Your task to perform on an android device: Is it going to rain tomorrow? Image 0: 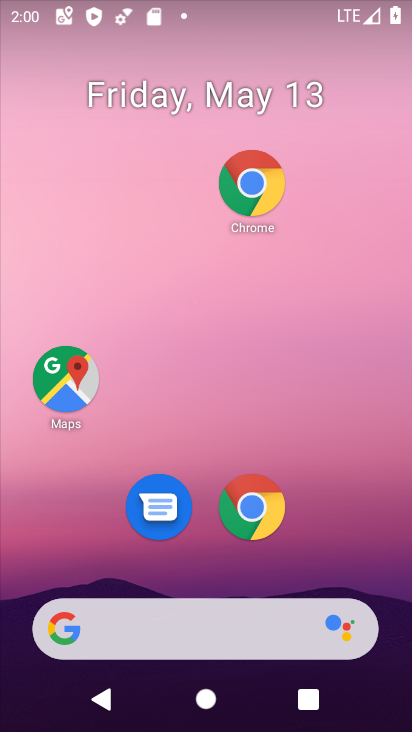
Step 0: click (378, 517)
Your task to perform on an android device: Is it going to rain tomorrow? Image 1: 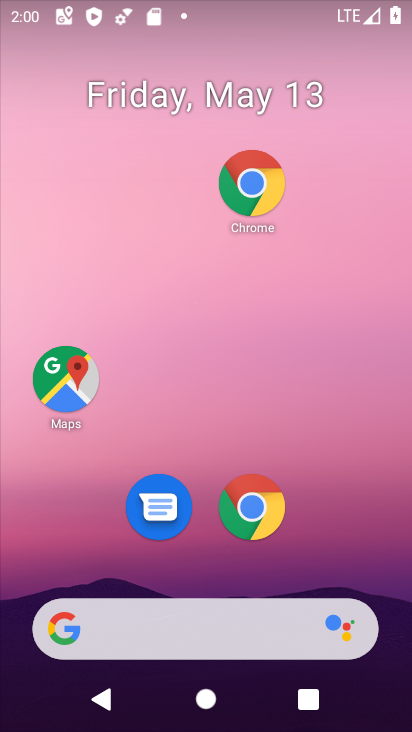
Step 1: drag from (51, 152) to (287, 329)
Your task to perform on an android device: Is it going to rain tomorrow? Image 2: 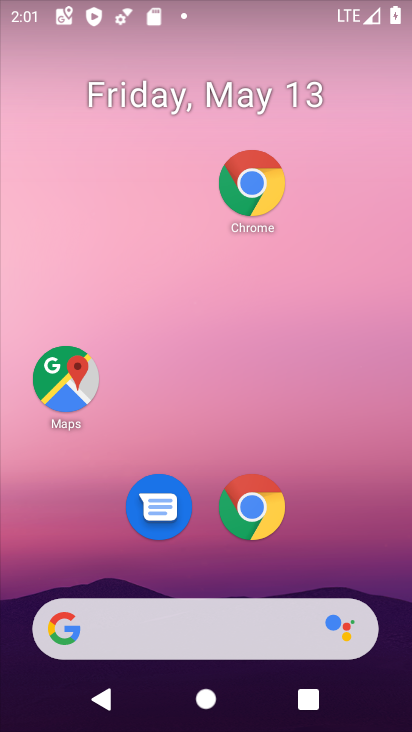
Step 2: click (403, 423)
Your task to perform on an android device: Is it going to rain tomorrow? Image 3: 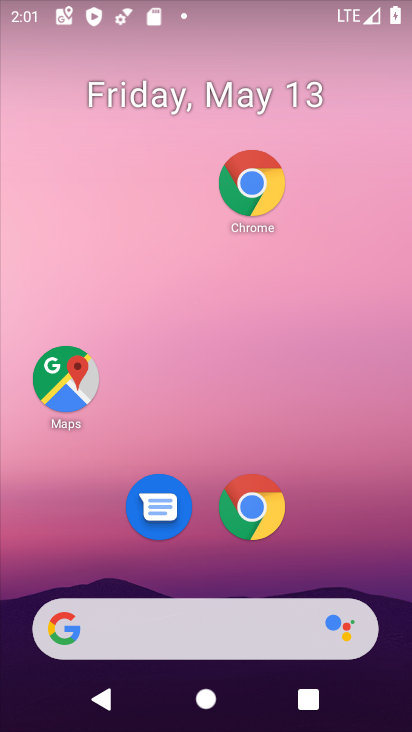
Step 3: drag from (12, 218) to (385, 462)
Your task to perform on an android device: Is it going to rain tomorrow? Image 4: 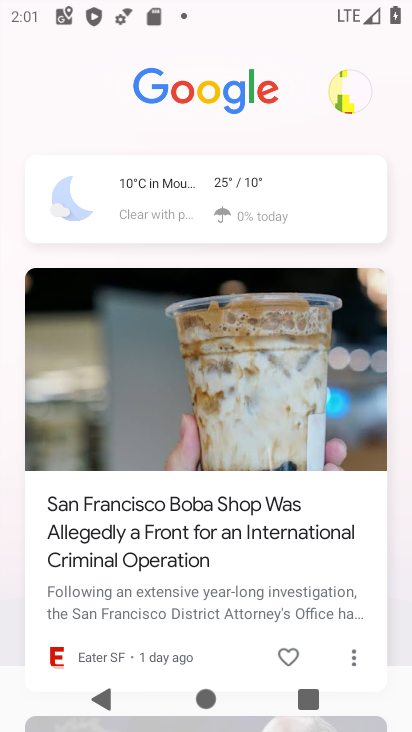
Step 4: click (186, 189)
Your task to perform on an android device: Is it going to rain tomorrow? Image 5: 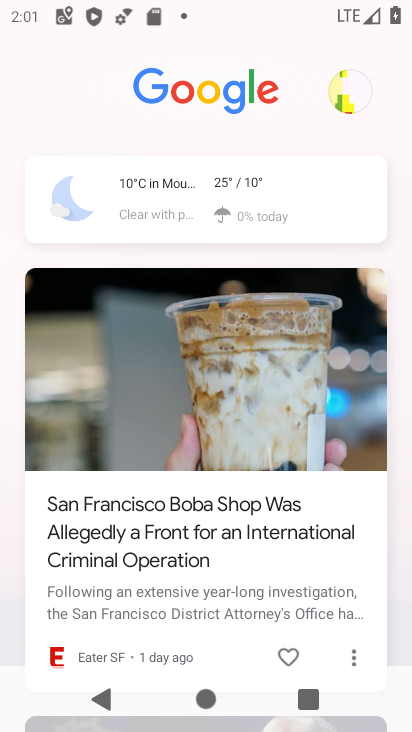
Step 5: click (190, 187)
Your task to perform on an android device: Is it going to rain tomorrow? Image 6: 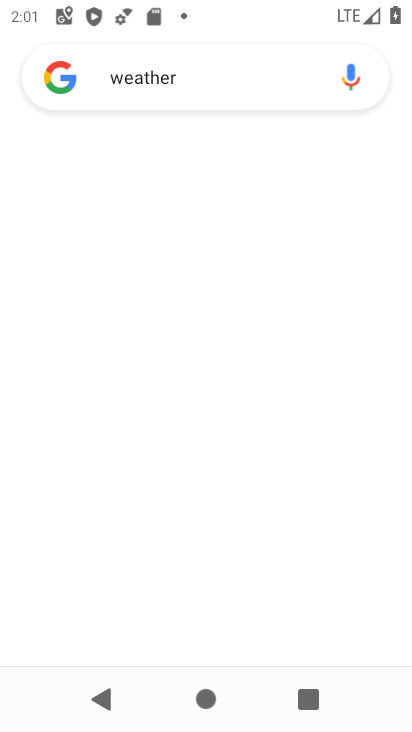
Step 6: click (201, 222)
Your task to perform on an android device: Is it going to rain tomorrow? Image 7: 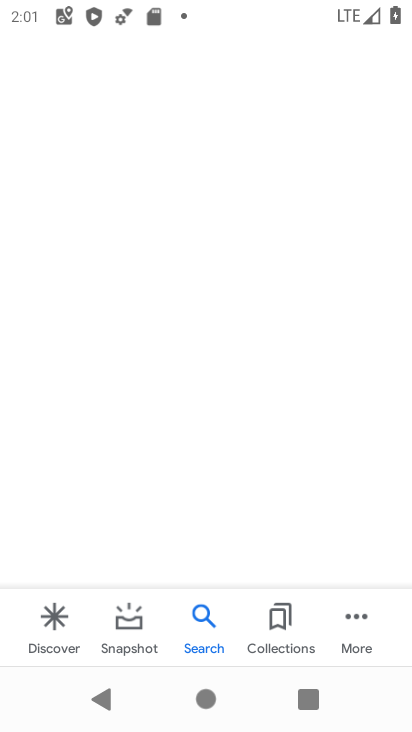
Step 7: click (203, 238)
Your task to perform on an android device: Is it going to rain tomorrow? Image 8: 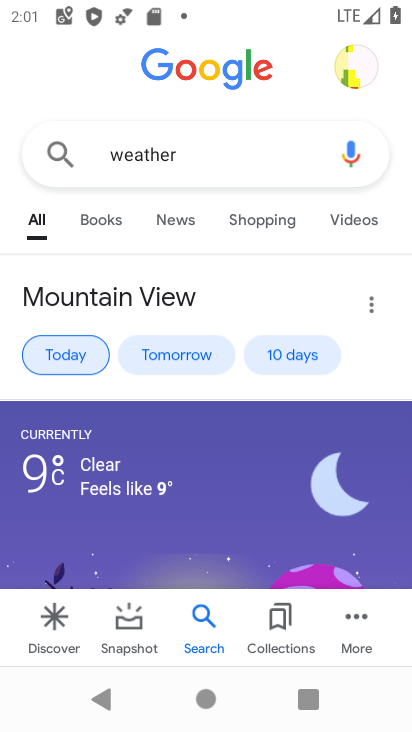
Step 8: task complete